Your task to perform on an android device: turn on improve location accuracy Image 0: 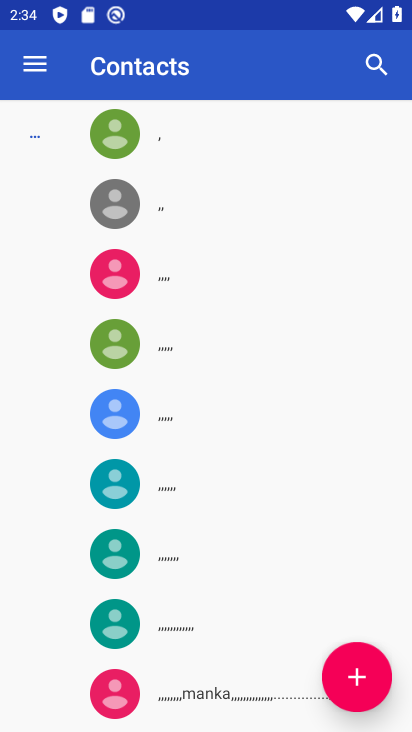
Step 0: press home button
Your task to perform on an android device: turn on improve location accuracy Image 1: 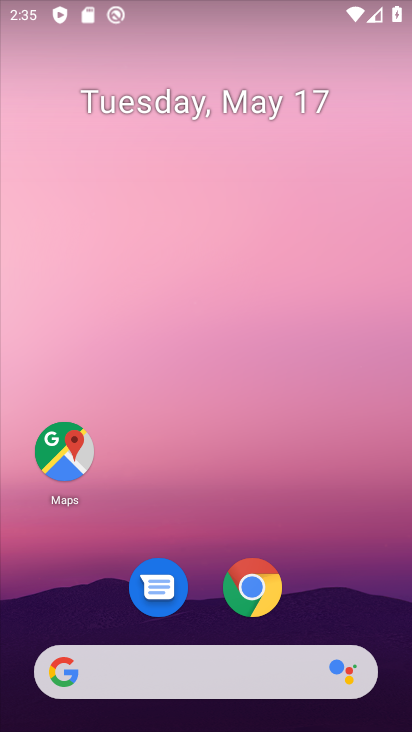
Step 1: drag from (189, 600) to (199, 126)
Your task to perform on an android device: turn on improve location accuracy Image 2: 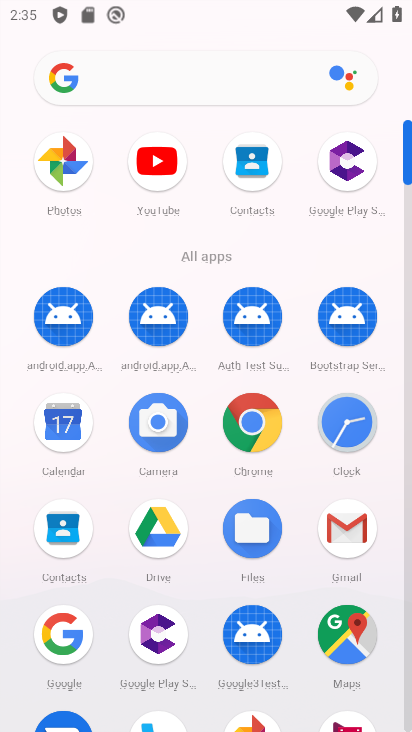
Step 2: drag from (295, 552) to (298, 176)
Your task to perform on an android device: turn on improve location accuracy Image 3: 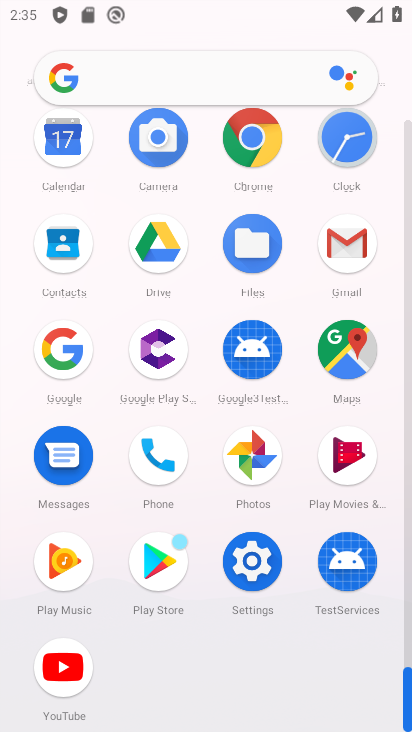
Step 3: click (250, 554)
Your task to perform on an android device: turn on improve location accuracy Image 4: 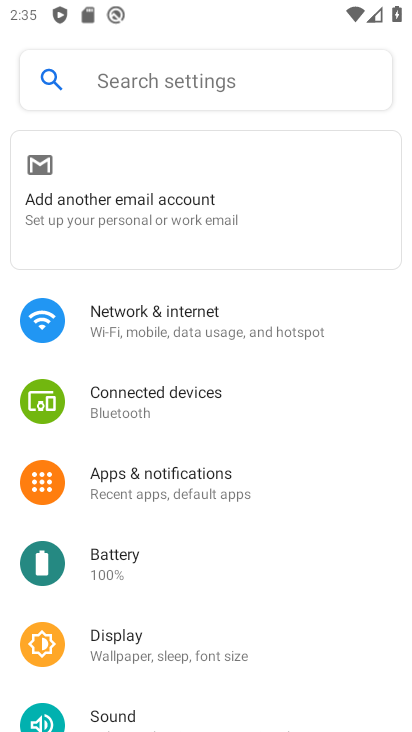
Step 4: drag from (151, 701) to (194, 149)
Your task to perform on an android device: turn on improve location accuracy Image 5: 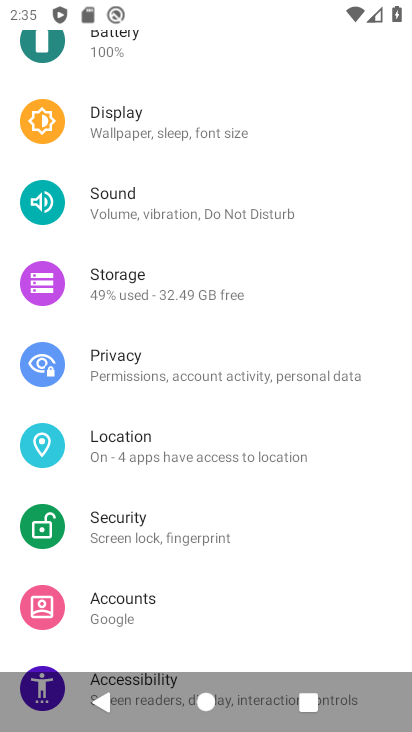
Step 5: click (179, 430)
Your task to perform on an android device: turn on improve location accuracy Image 6: 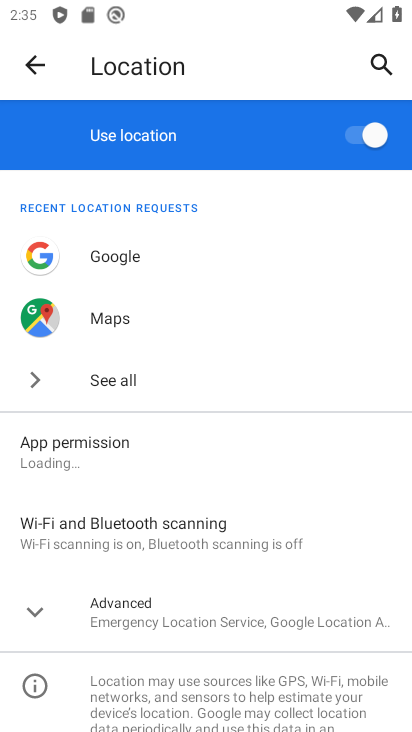
Step 6: click (250, 616)
Your task to perform on an android device: turn on improve location accuracy Image 7: 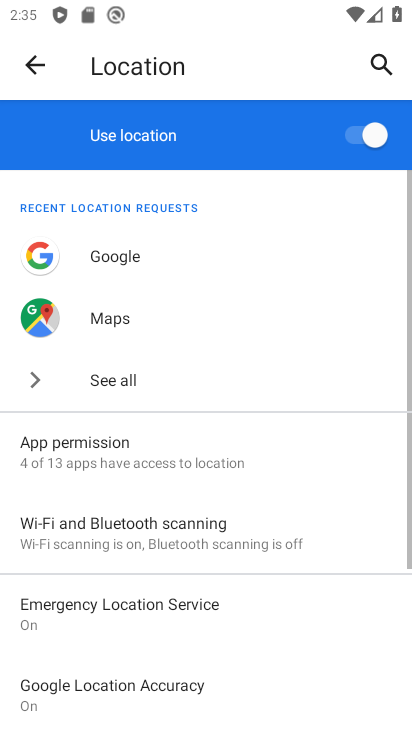
Step 7: drag from (253, 655) to (286, 202)
Your task to perform on an android device: turn on improve location accuracy Image 8: 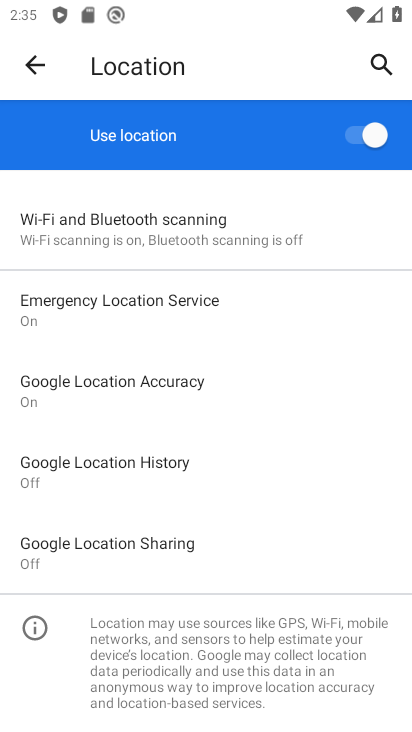
Step 8: click (185, 386)
Your task to perform on an android device: turn on improve location accuracy Image 9: 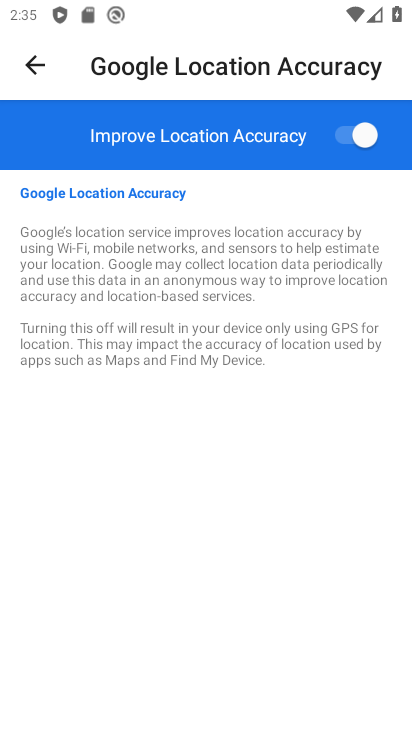
Step 9: task complete